Your task to perform on an android device: Open Google Maps Image 0: 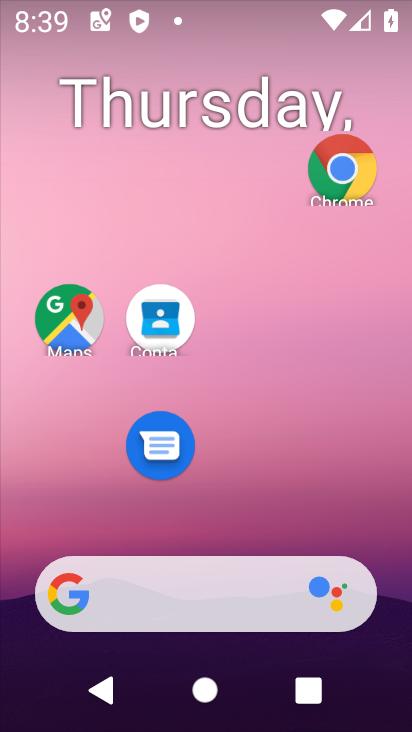
Step 0: drag from (267, 640) to (288, 115)
Your task to perform on an android device: Open Google Maps Image 1: 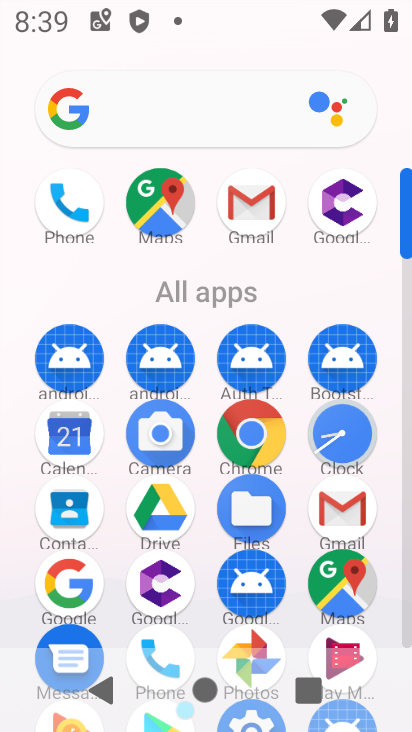
Step 1: click (154, 186)
Your task to perform on an android device: Open Google Maps Image 2: 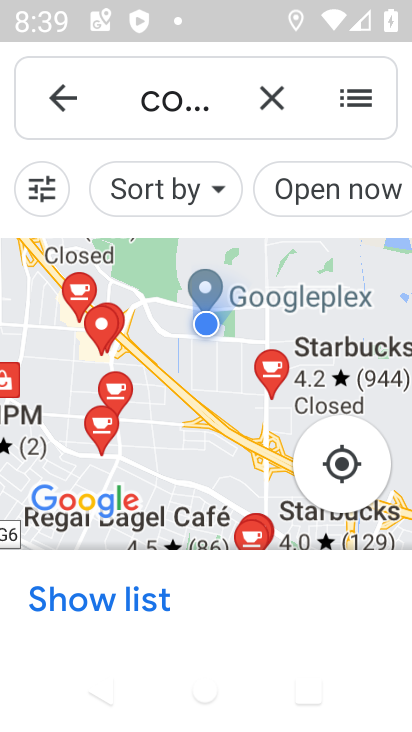
Step 2: click (51, 99)
Your task to perform on an android device: Open Google Maps Image 3: 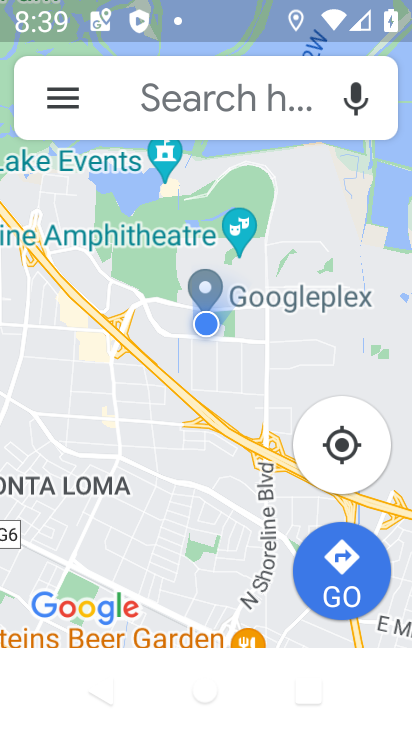
Step 3: click (131, 251)
Your task to perform on an android device: Open Google Maps Image 4: 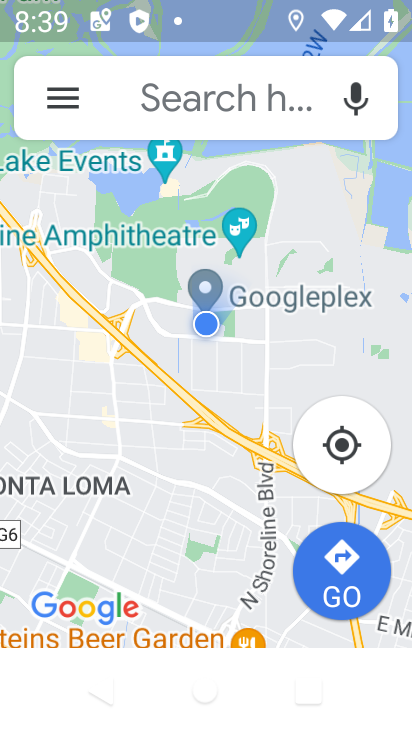
Step 4: task complete